Your task to perform on an android device: change notification settings in the gmail app Image 0: 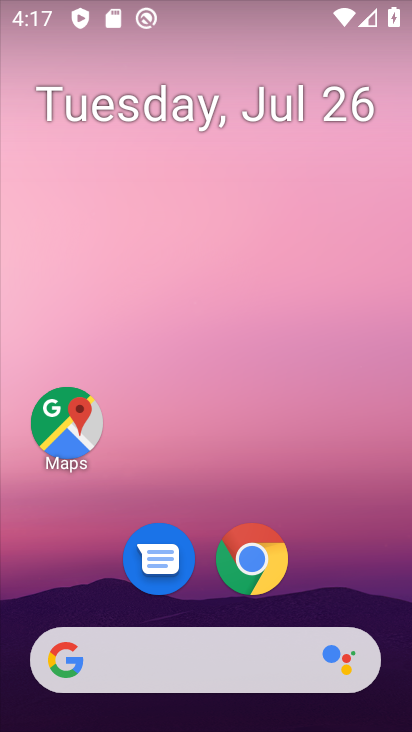
Step 0: drag from (192, 615) to (277, 0)
Your task to perform on an android device: change notification settings in the gmail app Image 1: 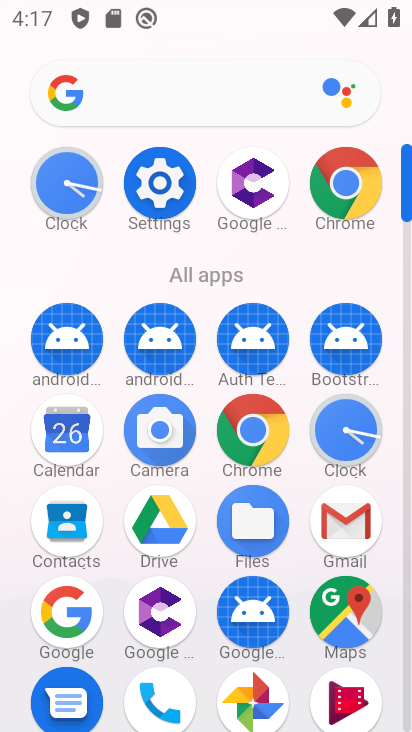
Step 1: click (353, 526)
Your task to perform on an android device: change notification settings in the gmail app Image 2: 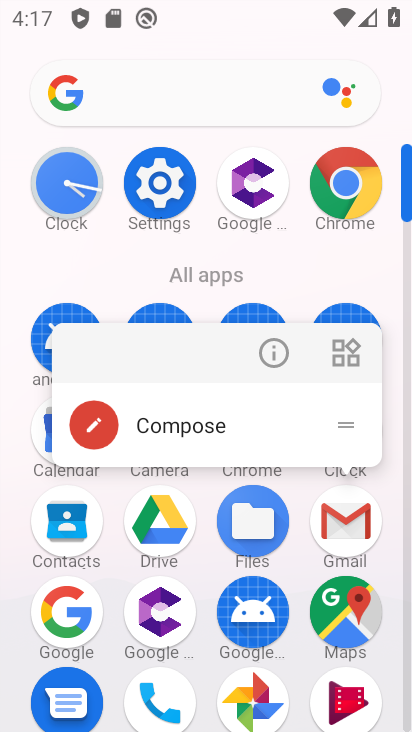
Step 2: click (273, 353)
Your task to perform on an android device: change notification settings in the gmail app Image 3: 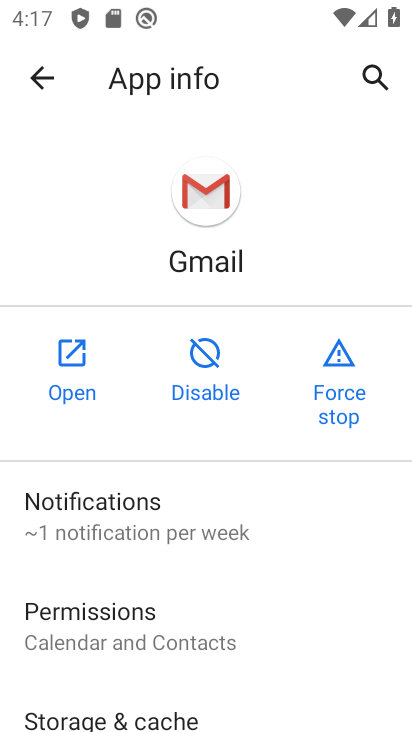
Step 3: click (117, 502)
Your task to perform on an android device: change notification settings in the gmail app Image 4: 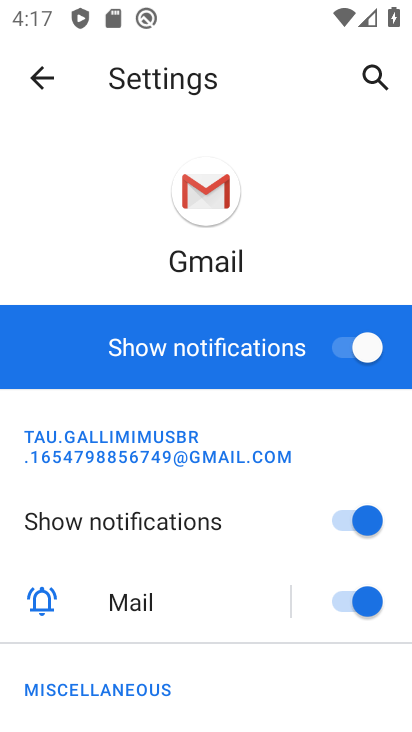
Step 4: click (360, 506)
Your task to perform on an android device: change notification settings in the gmail app Image 5: 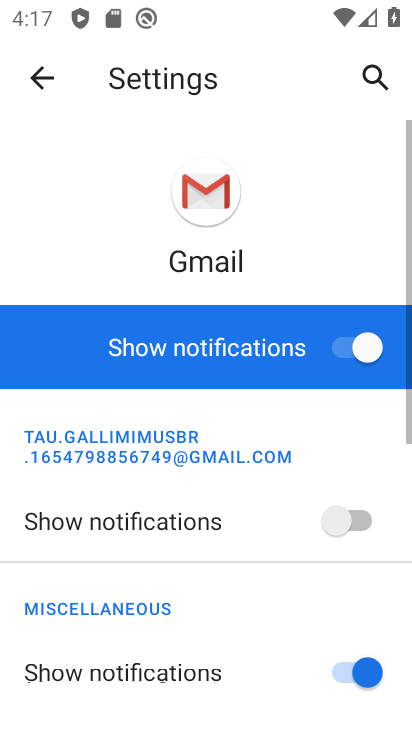
Step 5: task complete